Your task to perform on an android device: Do I have any events today? Image 0: 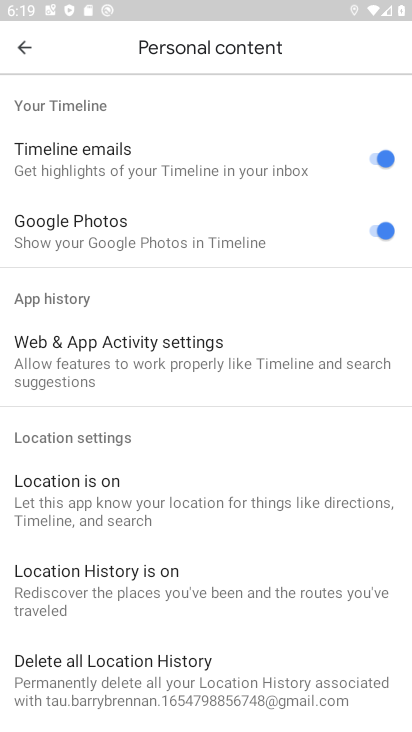
Step 0: press home button
Your task to perform on an android device: Do I have any events today? Image 1: 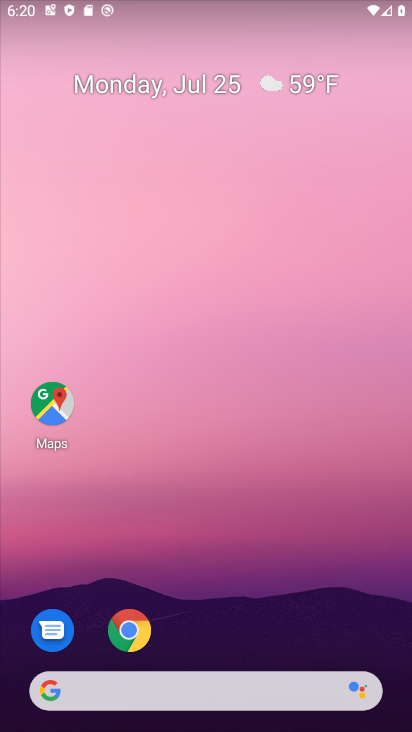
Step 1: drag from (187, 645) to (221, 214)
Your task to perform on an android device: Do I have any events today? Image 2: 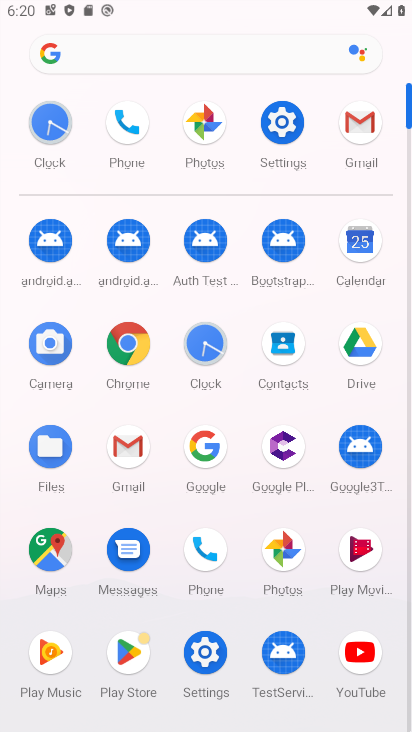
Step 2: click (363, 258)
Your task to perform on an android device: Do I have any events today? Image 3: 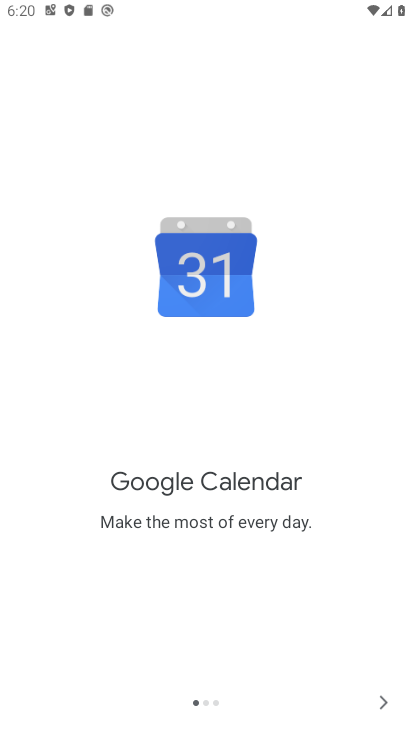
Step 3: click (383, 698)
Your task to perform on an android device: Do I have any events today? Image 4: 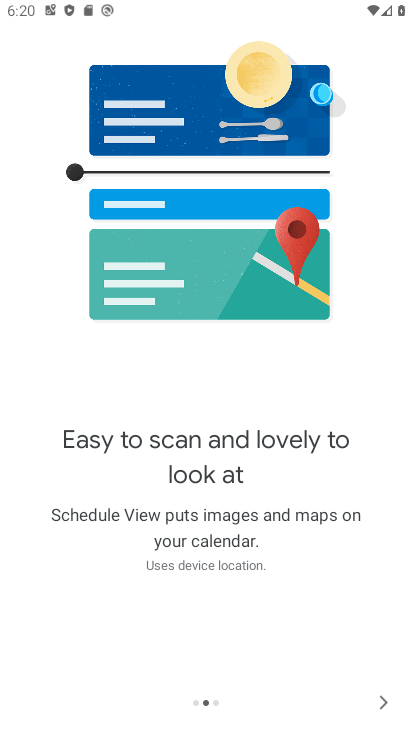
Step 4: click (386, 701)
Your task to perform on an android device: Do I have any events today? Image 5: 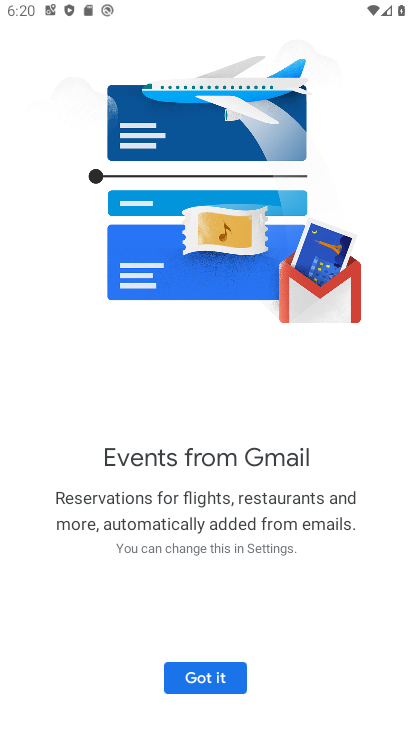
Step 5: click (386, 701)
Your task to perform on an android device: Do I have any events today? Image 6: 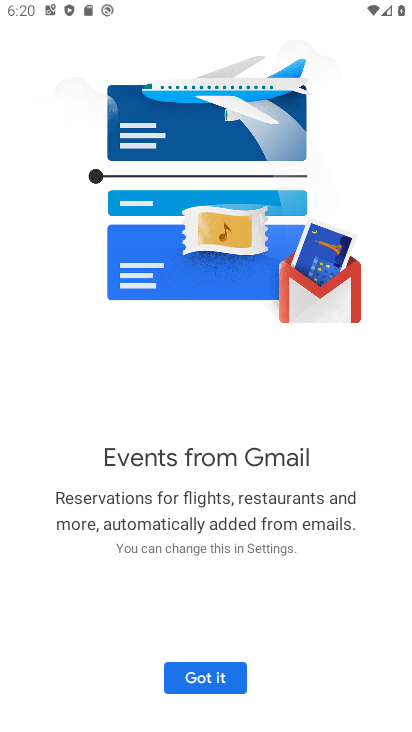
Step 6: click (198, 679)
Your task to perform on an android device: Do I have any events today? Image 7: 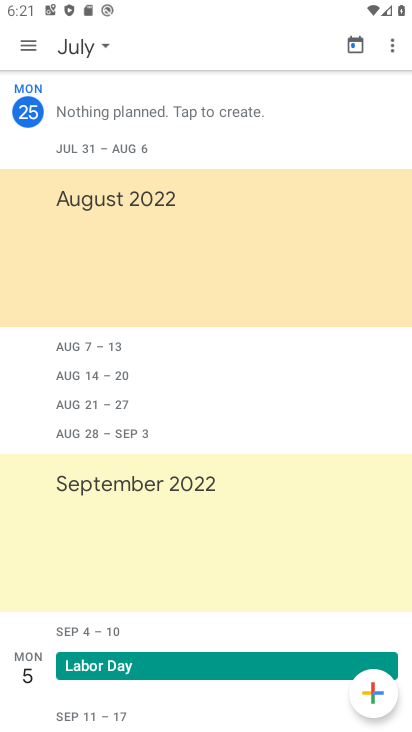
Step 7: task complete